Your task to perform on an android device: Search for "rayovac triple a" on amazon, select the first entry, and add it to the cart. Image 0: 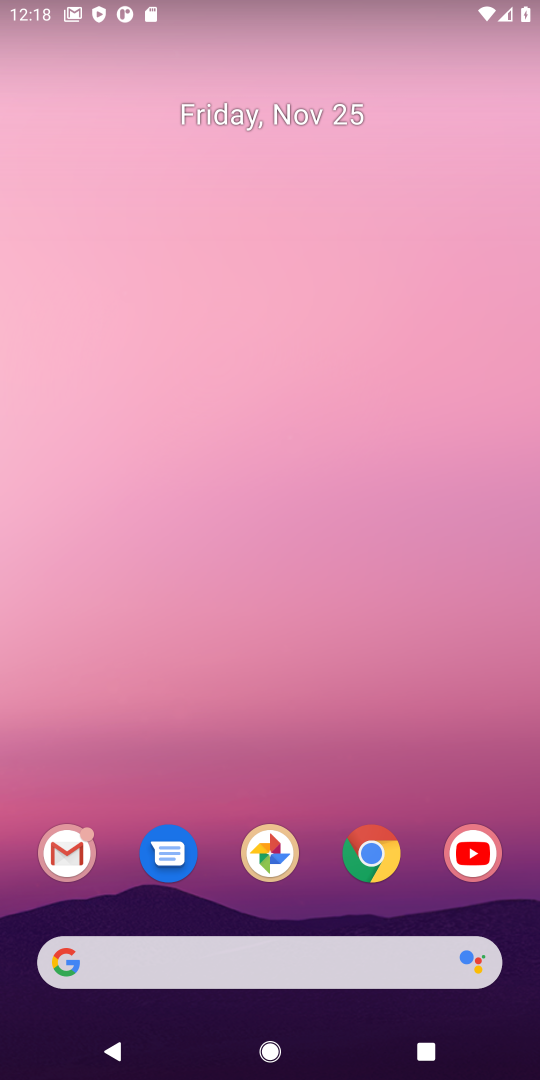
Step 0: click (338, 961)
Your task to perform on an android device: Search for "rayovac triple a" on amazon, select the first entry, and add it to the cart. Image 1: 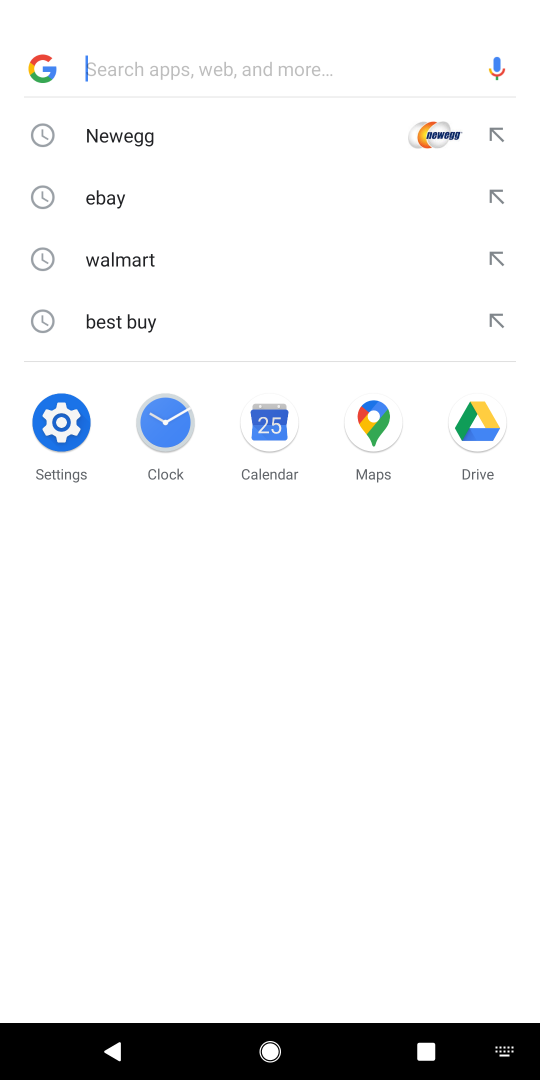
Step 1: type "amazon"
Your task to perform on an android device: Search for "rayovac triple a" on amazon, select the first entry, and add it to the cart. Image 2: 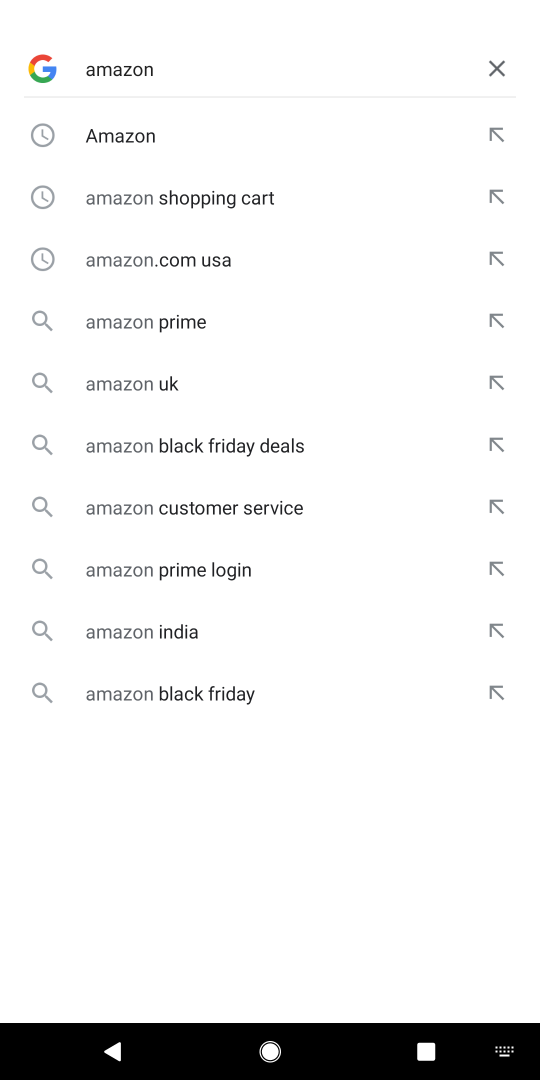
Step 2: click (189, 132)
Your task to perform on an android device: Search for "rayovac triple a" on amazon, select the first entry, and add it to the cart. Image 3: 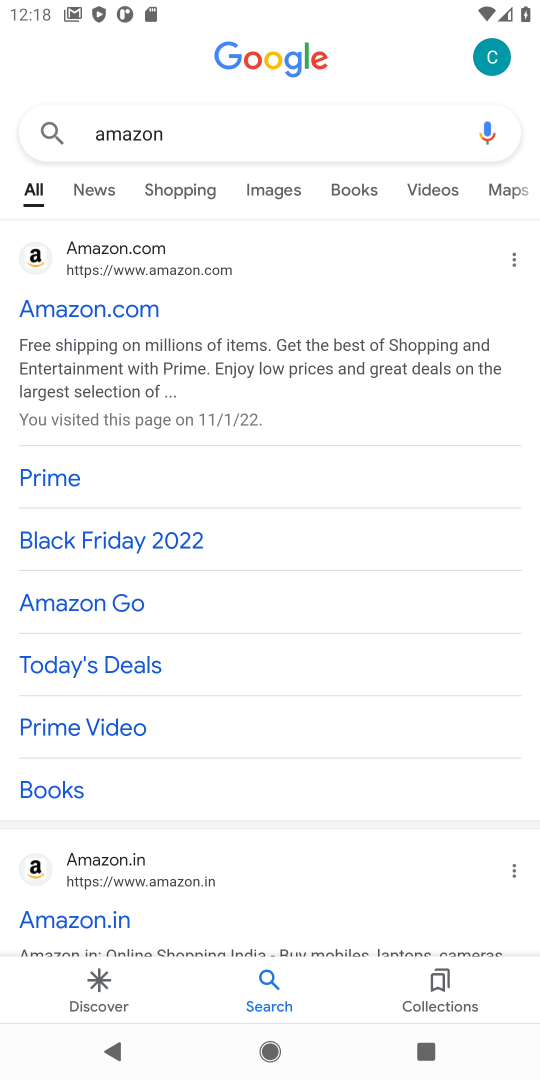
Step 3: click (87, 329)
Your task to perform on an android device: Search for "rayovac triple a" on amazon, select the first entry, and add it to the cart. Image 4: 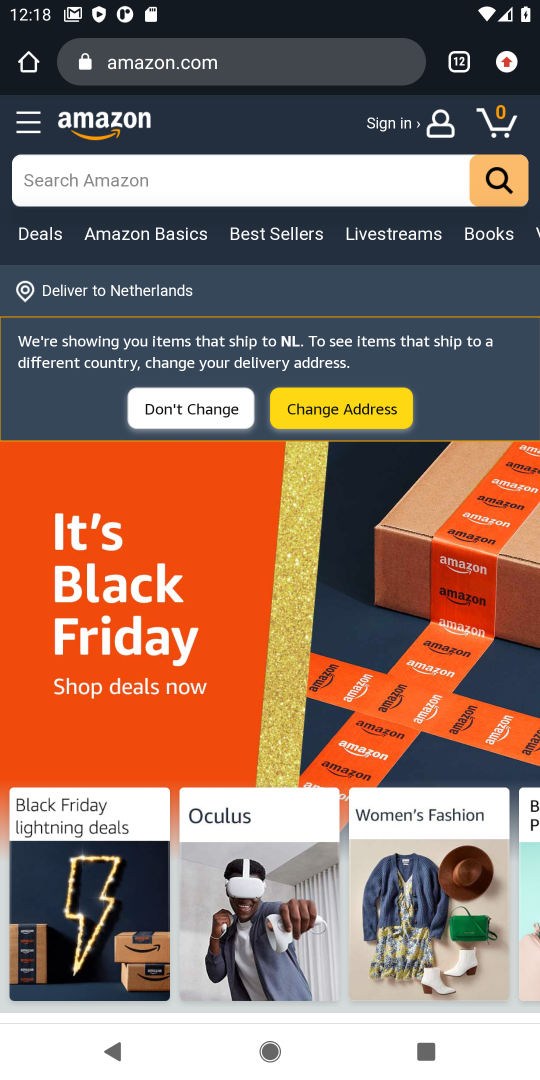
Step 4: click (265, 174)
Your task to perform on an android device: Search for "rayovac triple a" on amazon, select the first entry, and add it to the cart. Image 5: 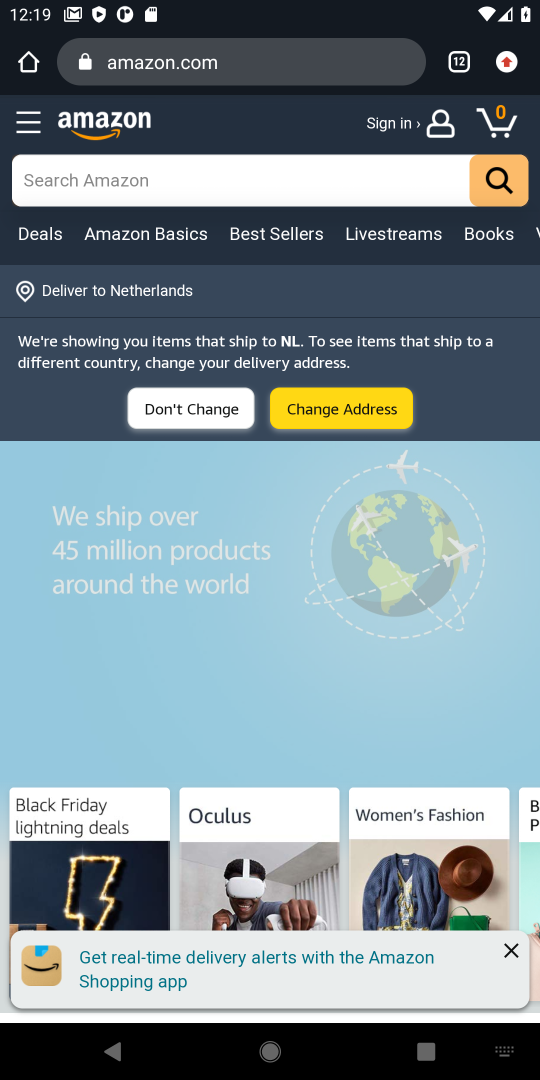
Step 5: type "rayovac"
Your task to perform on an android device: Search for "rayovac triple a" on amazon, select the first entry, and add it to the cart. Image 6: 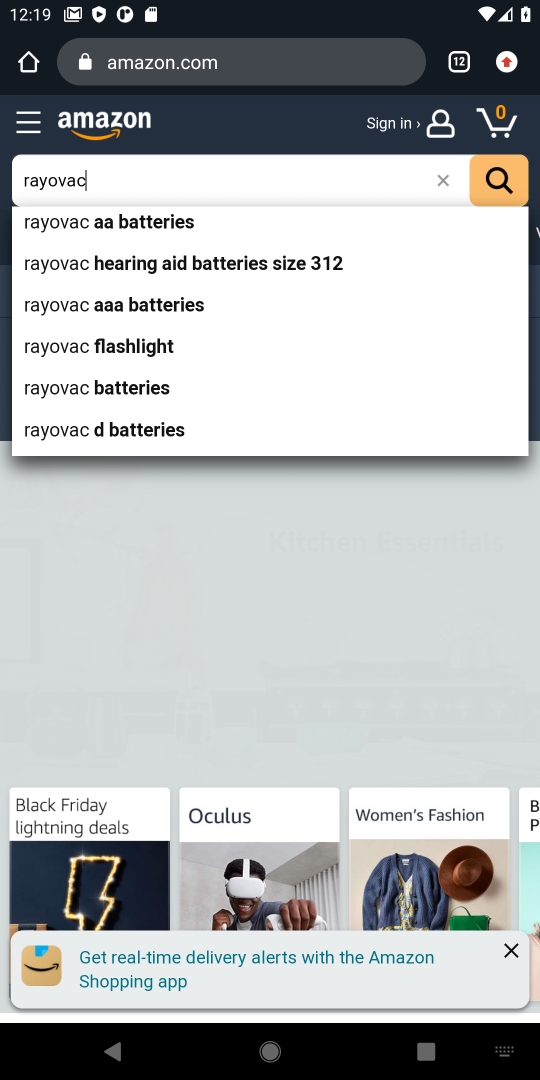
Step 6: click (179, 219)
Your task to perform on an android device: Search for "rayovac triple a" on amazon, select the first entry, and add it to the cart. Image 7: 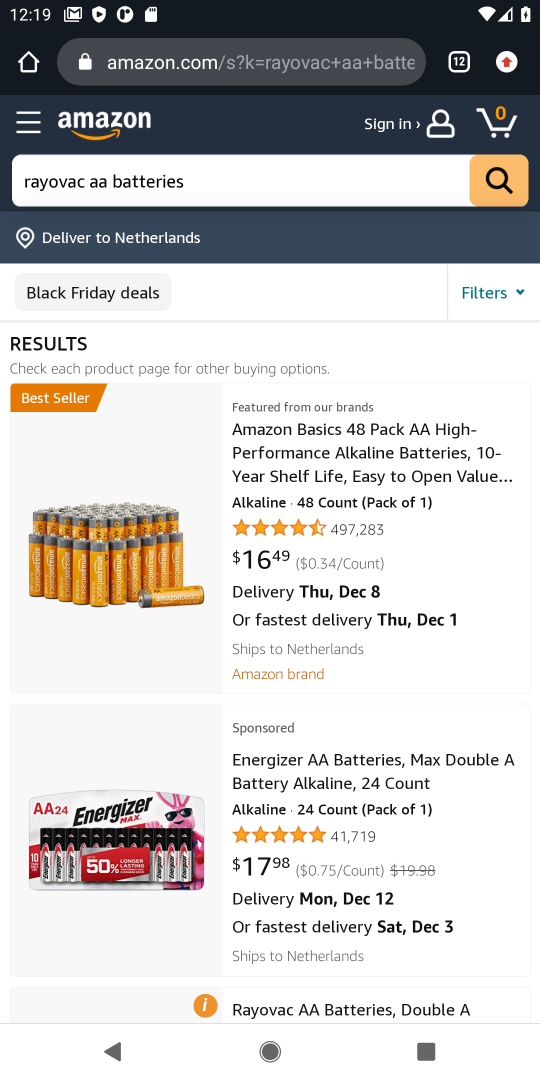
Step 7: click (229, 562)
Your task to perform on an android device: Search for "rayovac triple a" on amazon, select the first entry, and add it to the cart. Image 8: 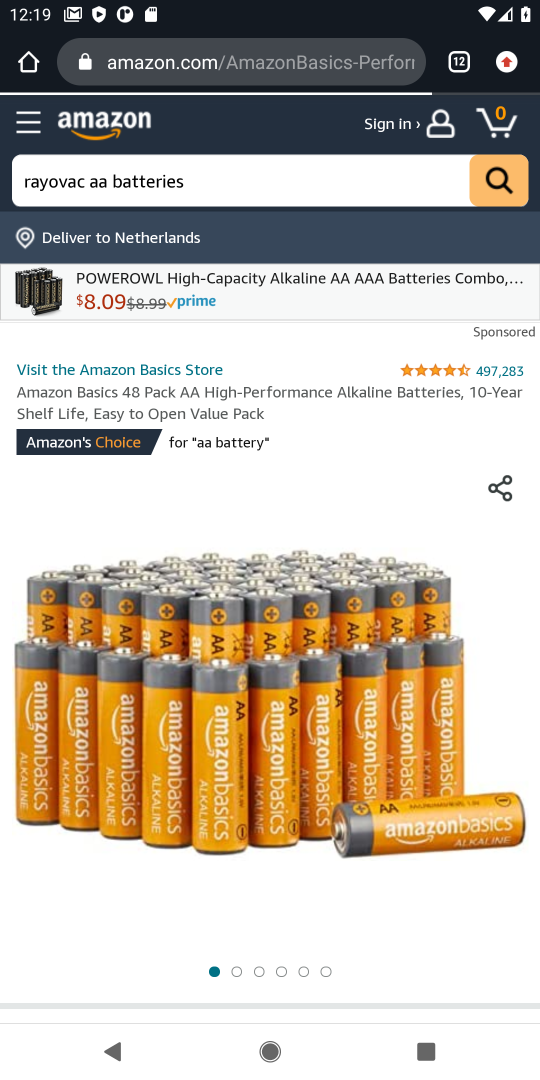
Step 8: drag from (327, 766) to (273, 538)
Your task to perform on an android device: Search for "rayovac triple a" on amazon, select the first entry, and add it to the cart. Image 9: 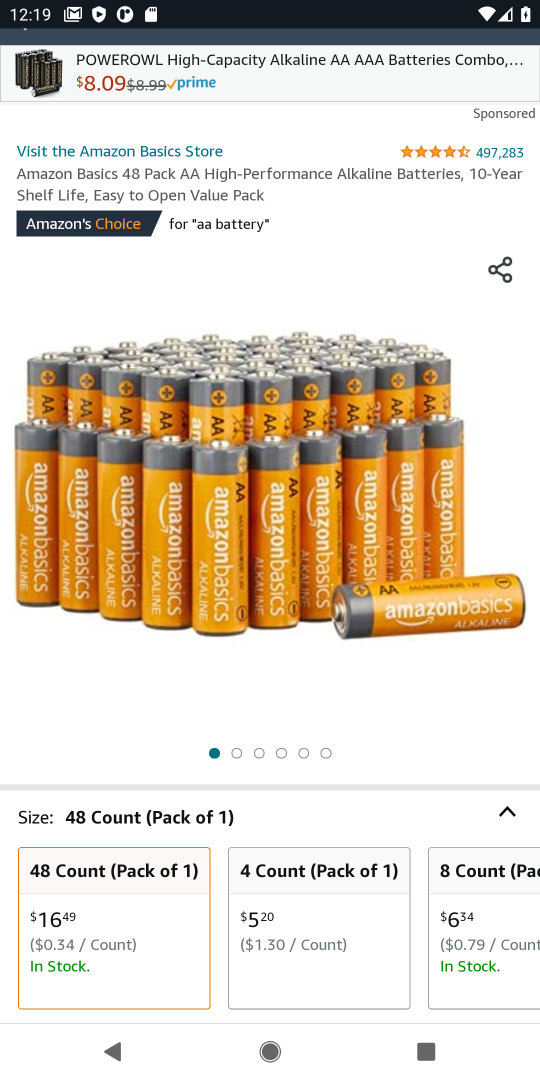
Step 9: drag from (349, 668) to (228, 482)
Your task to perform on an android device: Search for "rayovac triple a" on amazon, select the first entry, and add it to the cart. Image 10: 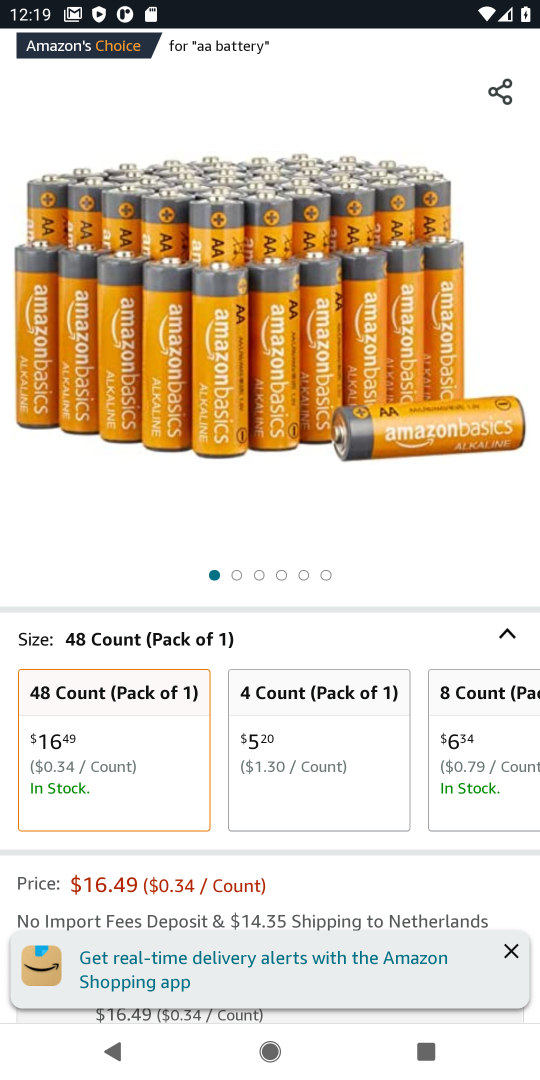
Step 10: click (509, 945)
Your task to perform on an android device: Search for "rayovac triple a" on amazon, select the first entry, and add it to the cart. Image 11: 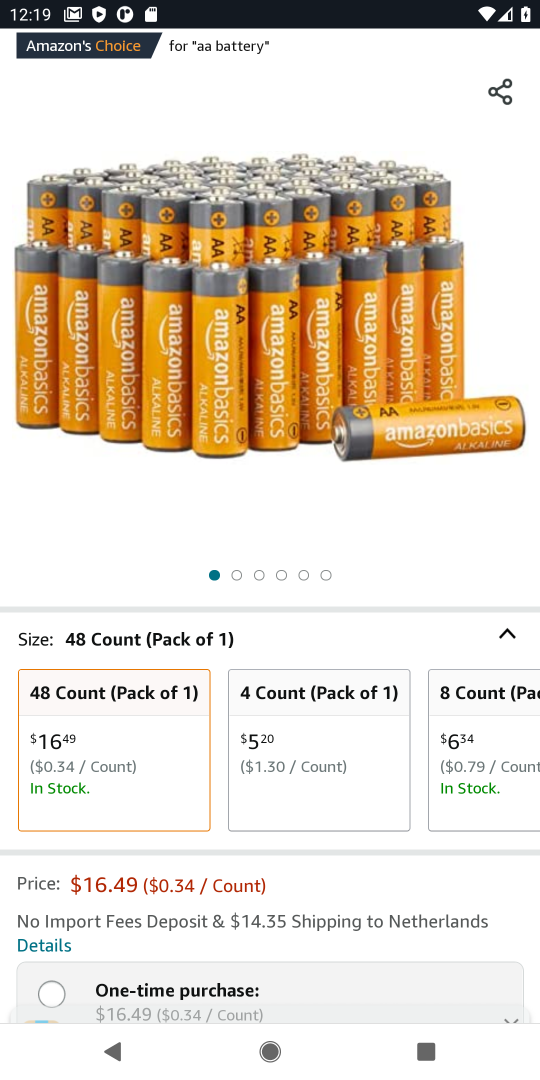
Step 11: drag from (430, 872) to (339, 509)
Your task to perform on an android device: Search for "rayovac triple a" on amazon, select the first entry, and add it to the cart. Image 12: 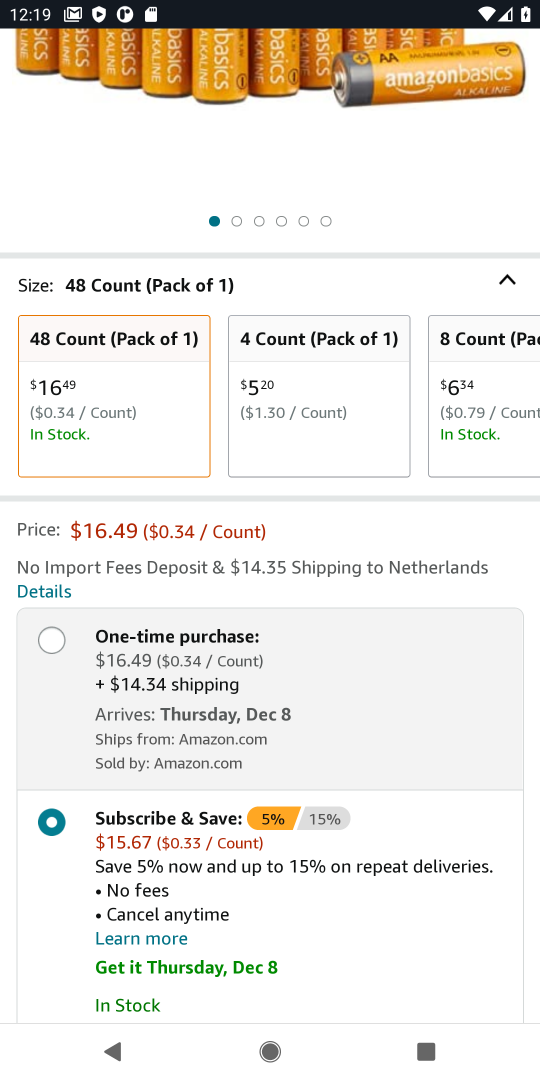
Step 12: drag from (333, 903) to (293, 509)
Your task to perform on an android device: Search for "rayovac triple a" on amazon, select the first entry, and add it to the cart. Image 13: 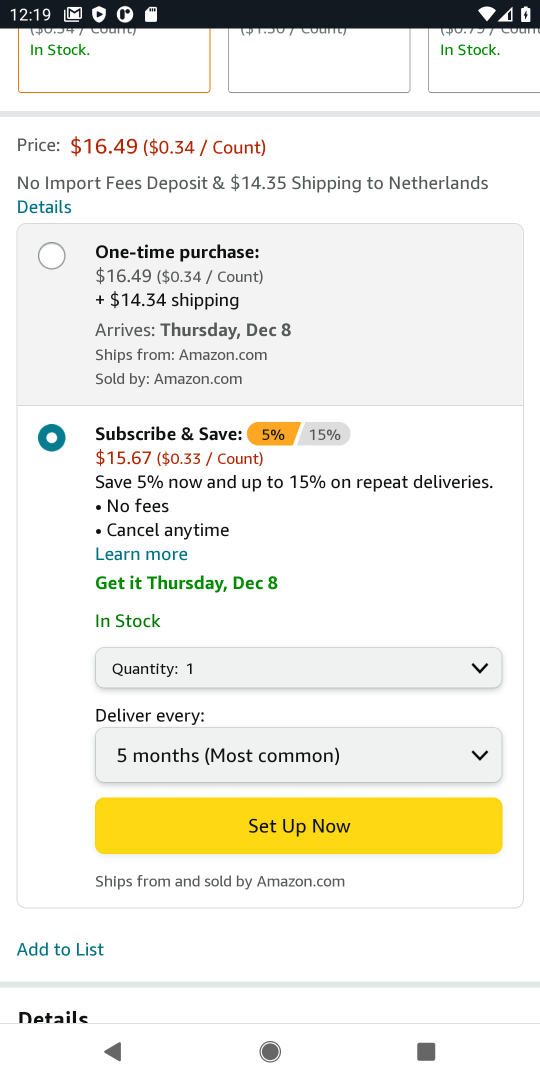
Step 13: click (260, 841)
Your task to perform on an android device: Search for "rayovac triple a" on amazon, select the first entry, and add it to the cart. Image 14: 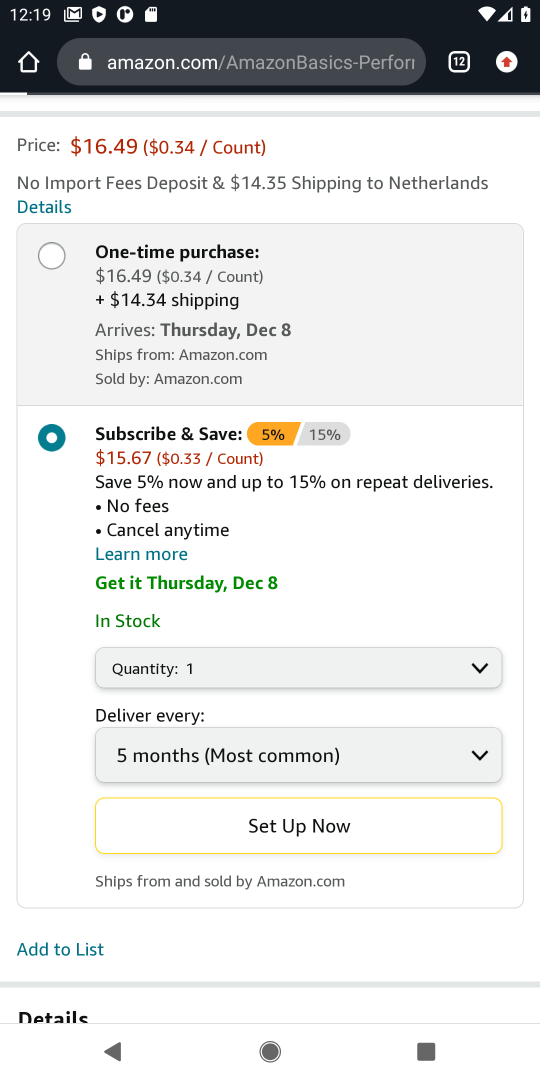
Step 14: task complete